Your task to perform on an android device: Search for Mexican restaurants on Maps Image 0: 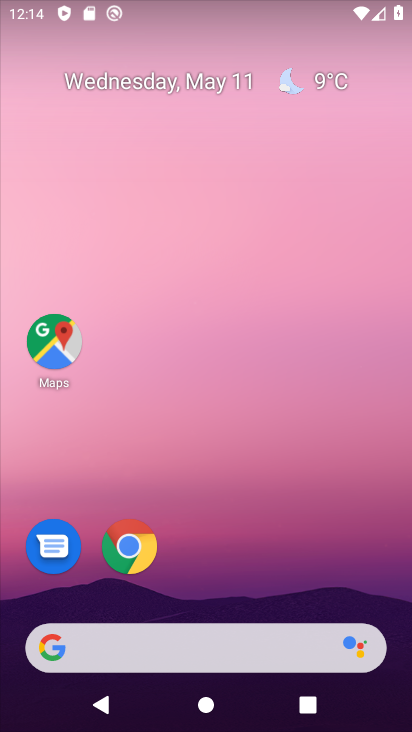
Step 0: drag from (303, 620) to (238, 0)
Your task to perform on an android device: Search for Mexican restaurants on Maps Image 1: 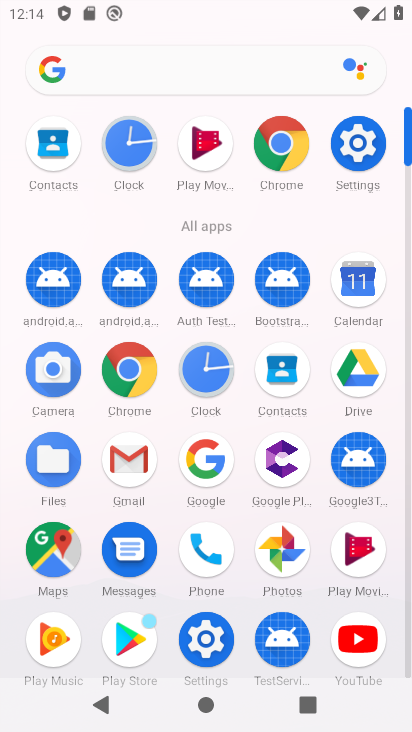
Step 1: click (70, 559)
Your task to perform on an android device: Search for Mexican restaurants on Maps Image 2: 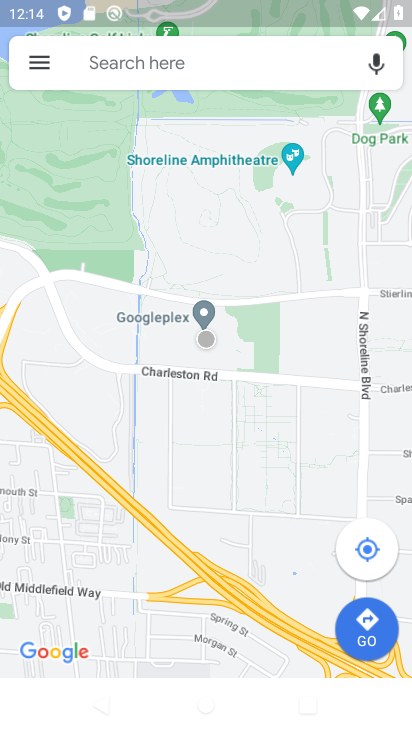
Step 2: click (224, 86)
Your task to perform on an android device: Search for Mexican restaurants on Maps Image 3: 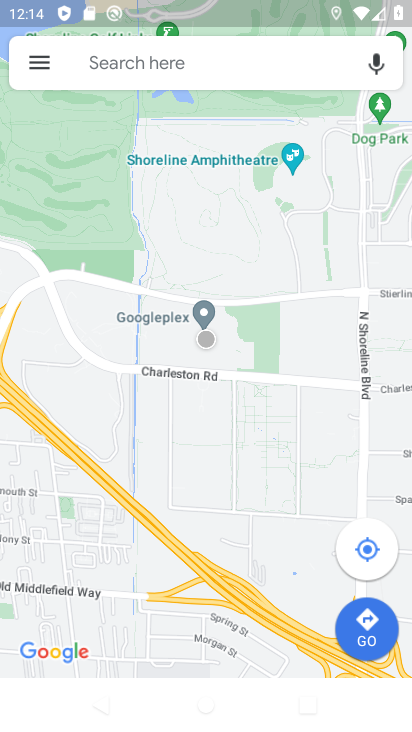
Step 3: click (224, 86)
Your task to perform on an android device: Search for Mexican restaurants on Maps Image 4: 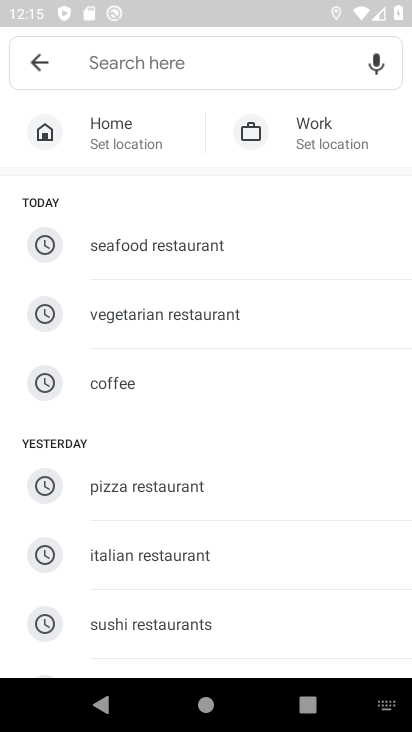
Step 4: type "mexican rest"
Your task to perform on an android device: Search for Mexican restaurants on Maps Image 5: 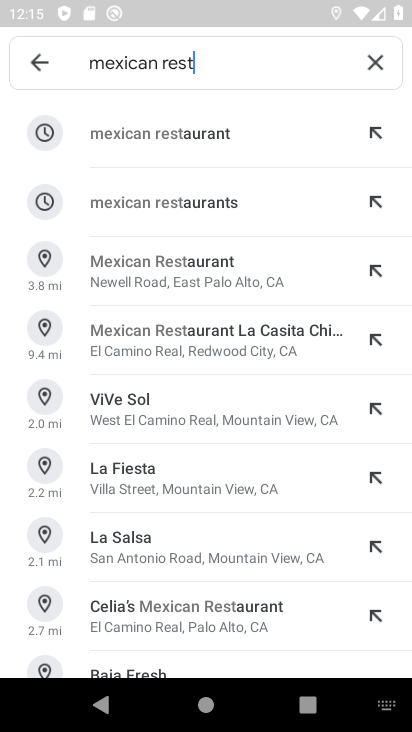
Step 5: click (210, 136)
Your task to perform on an android device: Search for Mexican restaurants on Maps Image 6: 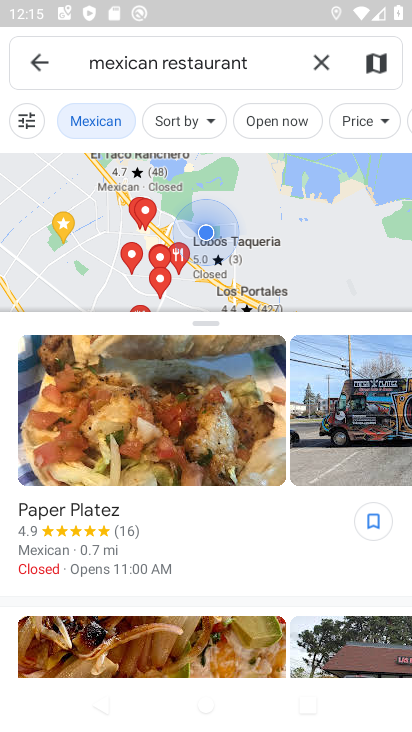
Step 6: task complete